Your task to perform on an android device: turn pop-ups on in chrome Image 0: 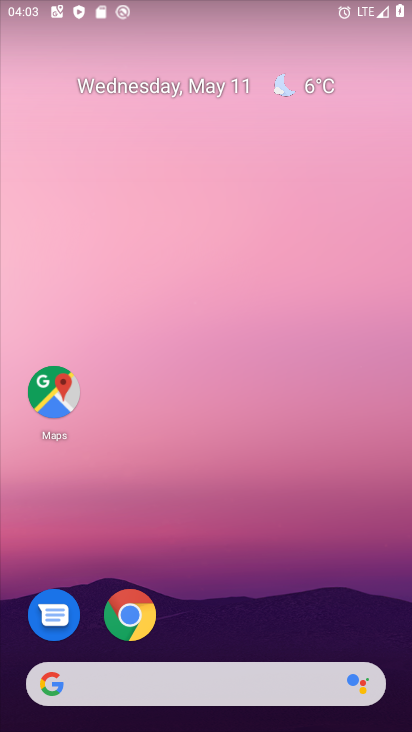
Step 0: click (121, 615)
Your task to perform on an android device: turn pop-ups on in chrome Image 1: 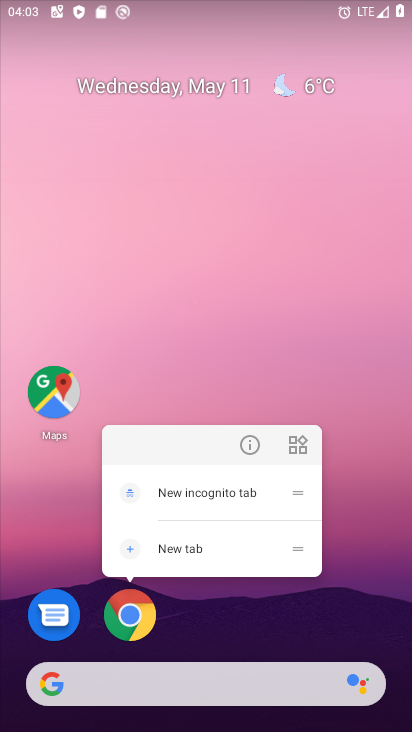
Step 1: click (126, 609)
Your task to perform on an android device: turn pop-ups on in chrome Image 2: 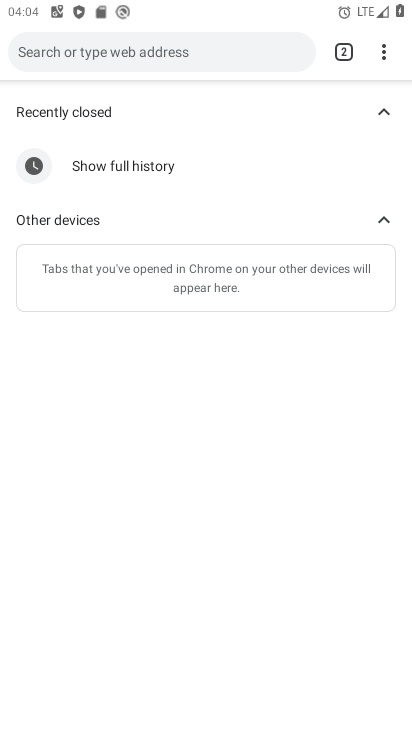
Step 2: drag from (381, 48) to (192, 437)
Your task to perform on an android device: turn pop-ups on in chrome Image 3: 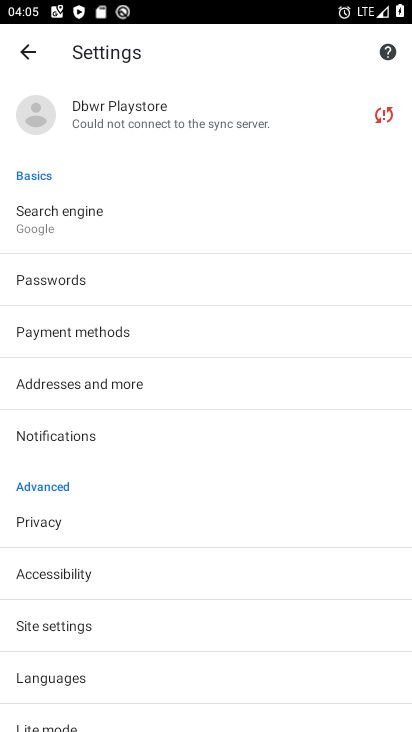
Step 3: click (62, 629)
Your task to perform on an android device: turn pop-ups on in chrome Image 4: 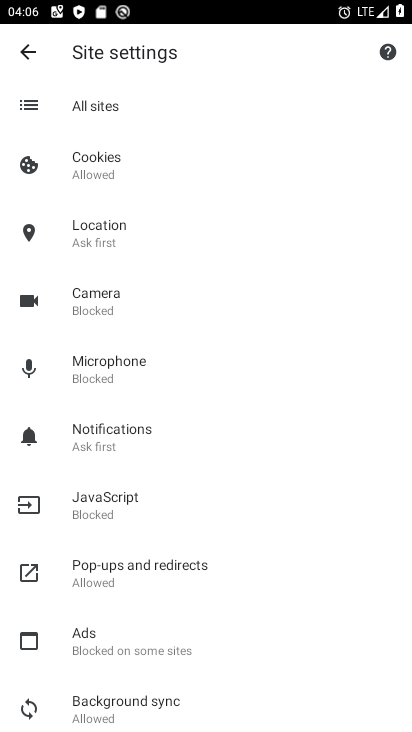
Step 4: click (111, 568)
Your task to perform on an android device: turn pop-ups on in chrome Image 5: 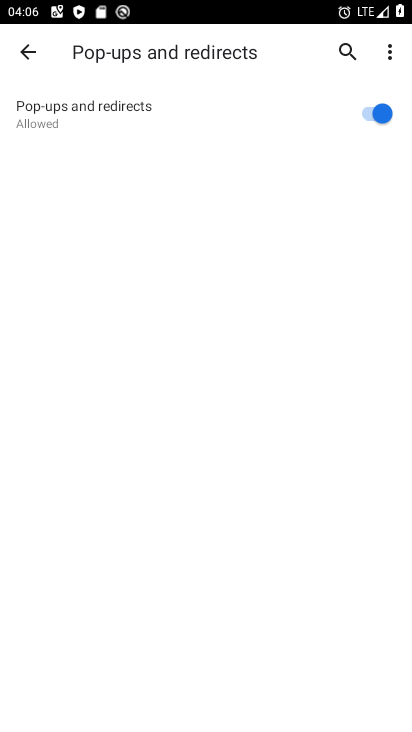
Step 5: task complete